Your task to perform on an android device: Open CNN.com Image 0: 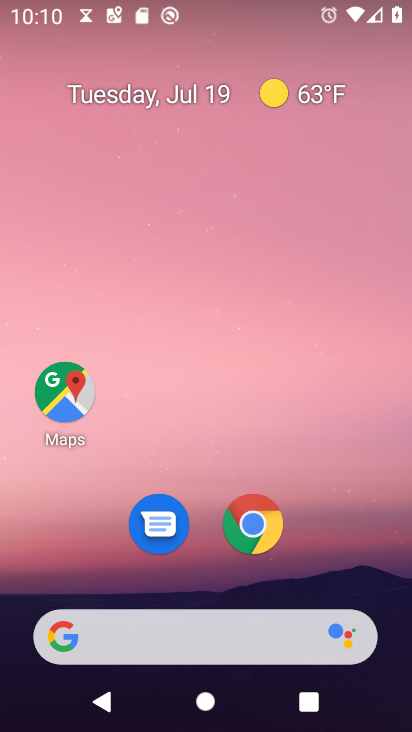
Step 0: click (256, 520)
Your task to perform on an android device: Open CNN.com Image 1: 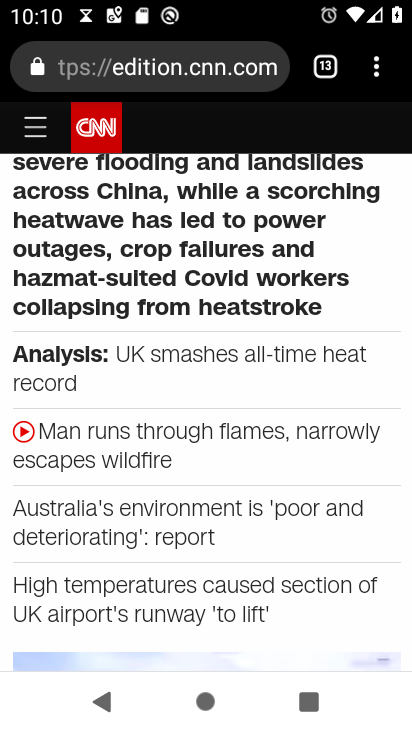
Step 1: click (256, 530)
Your task to perform on an android device: Open CNN.com Image 2: 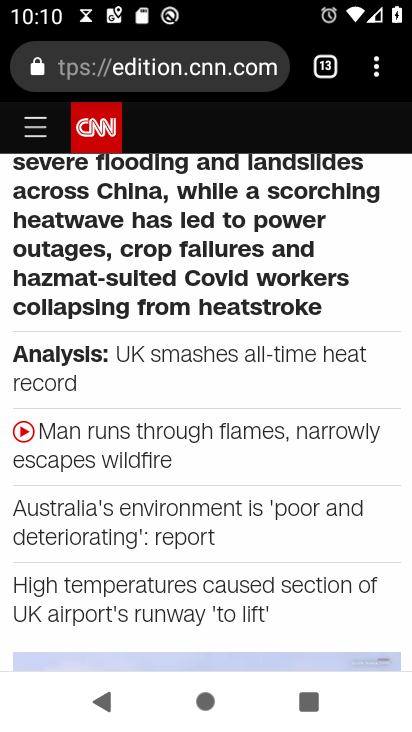
Step 2: task complete